Your task to perform on an android device: Toggle the flashlight Image 0: 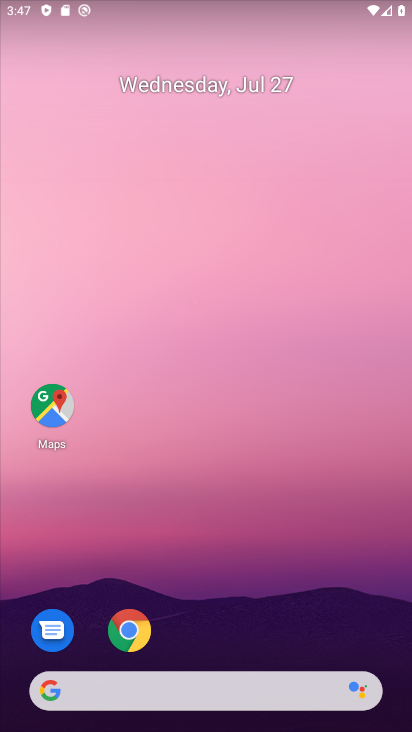
Step 0: drag from (188, 629) to (251, 50)
Your task to perform on an android device: Toggle the flashlight Image 1: 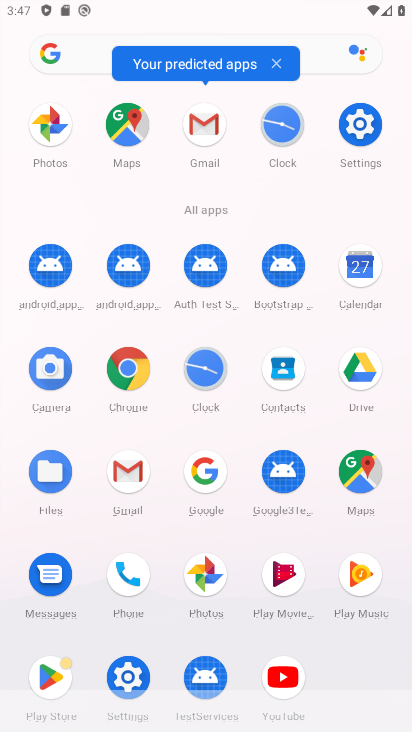
Step 1: click (359, 126)
Your task to perform on an android device: Toggle the flashlight Image 2: 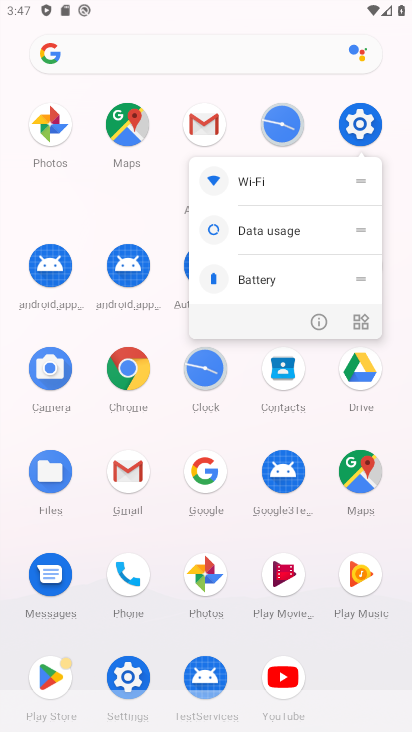
Step 2: click (383, 124)
Your task to perform on an android device: Toggle the flashlight Image 3: 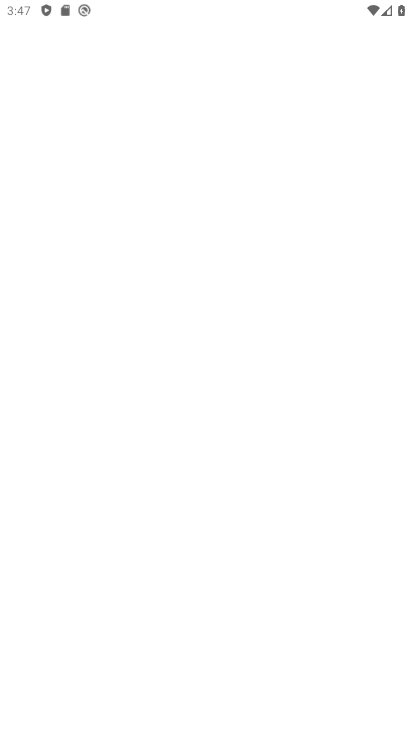
Step 3: click (355, 118)
Your task to perform on an android device: Toggle the flashlight Image 4: 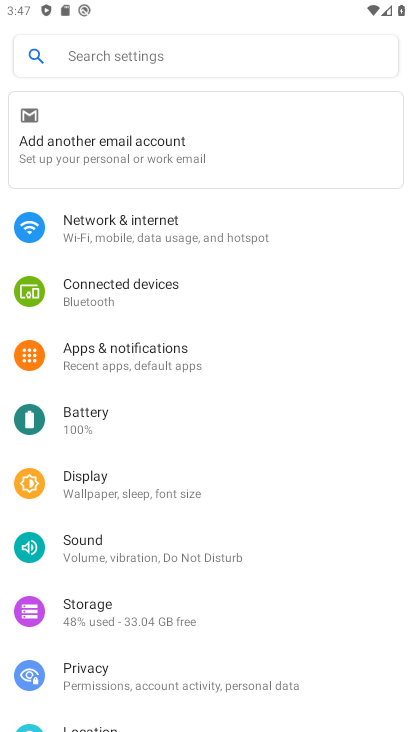
Step 4: click (140, 55)
Your task to perform on an android device: Toggle the flashlight Image 5: 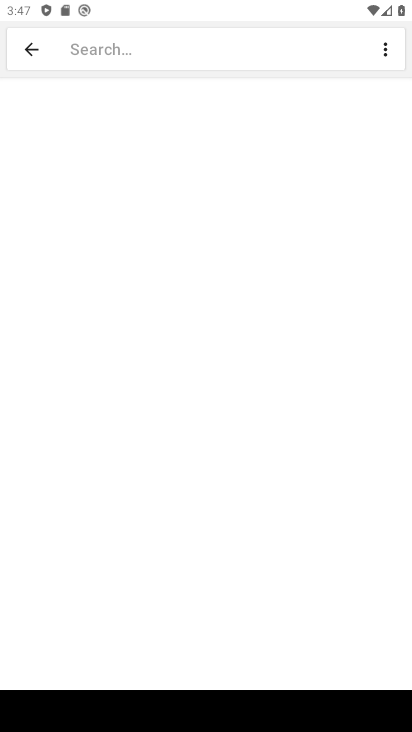
Step 5: type "flashlight"
Your task to perform on an android device: Toggle the flashlight Image 6: 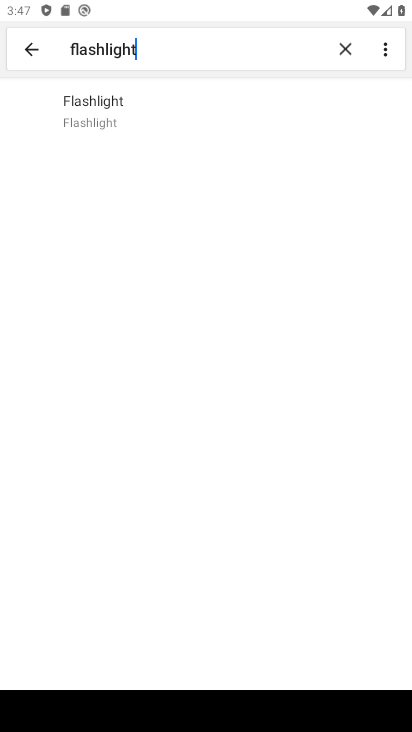
Step 6: click (99, 105)
Your task to perform on an android device: Toggle the flashlight Image 7: 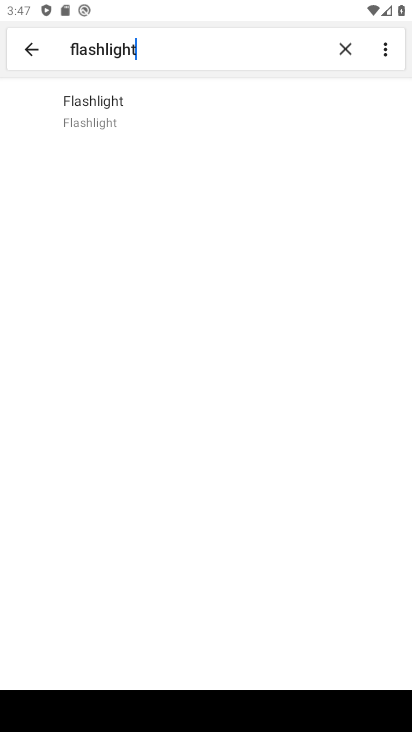
Step 7: task complete